Your task to perform on an android device: Do I have any events this weekend? Image 0: 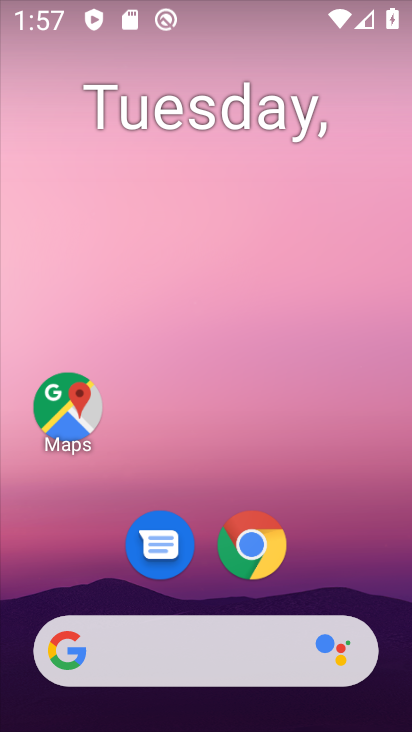
Step 0: drag from (339, 535) to (256, 27)
Your task to perform on an android device: Do I have any events this weekend? Image 1: 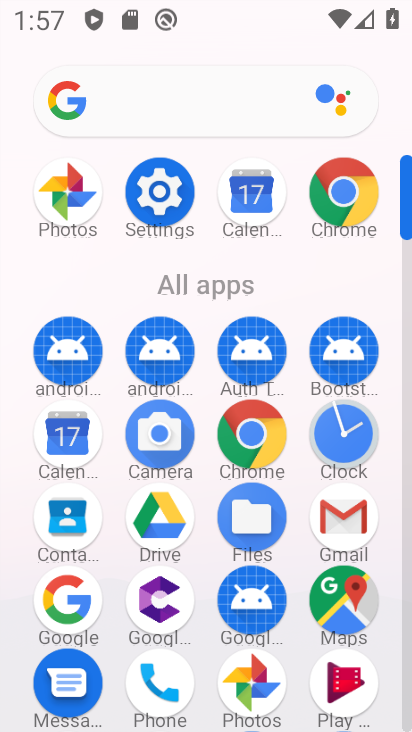
Step 1: drag from (18, 531) to (22, 246)
Your task to perform on an android device: Do I have any events this weekend? Image 2: 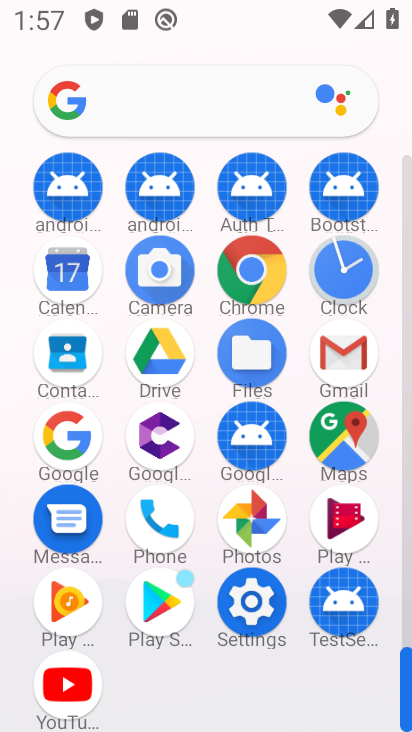
Step 2: click (68, 271)
Your task to perform on an android device: Do I have any events this weekend? Image 3: 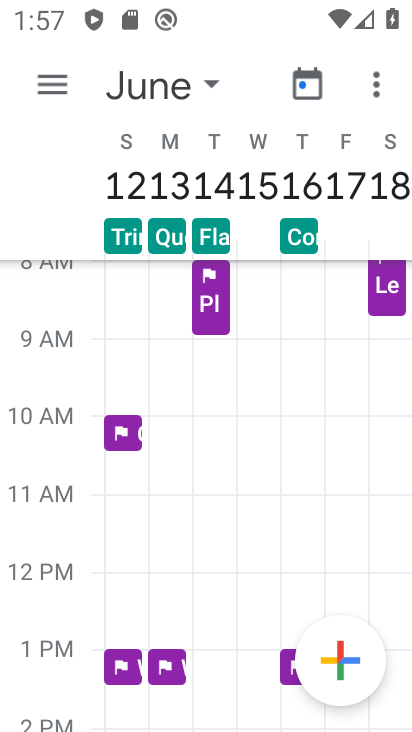
Step 3: click (390, 170)
Your task to perform on an android device: Do I have any events this weekend? Image 4: 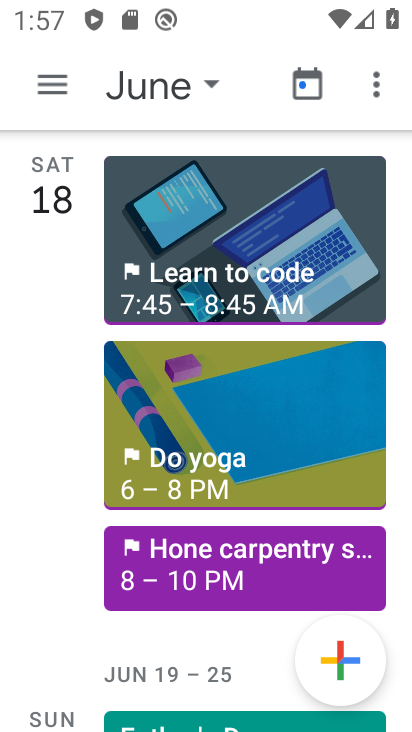
Step 4: task complete